Your task to perform on an android device: Go to Amazon Image 0: 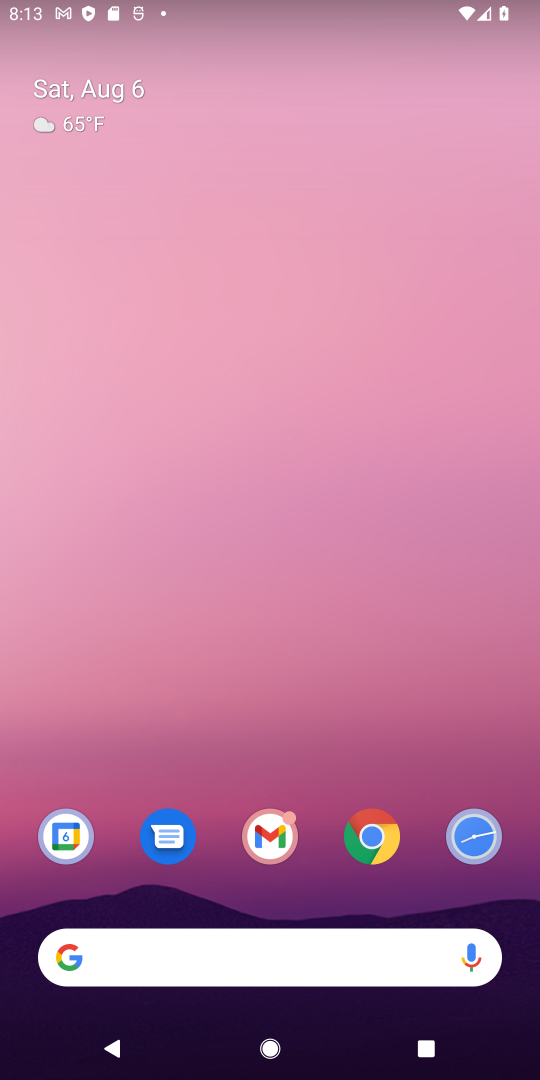
Step 0: drag from (441, 886) to (304, 58)
Your task to perform on an android device: Go to Amazon Image 1: 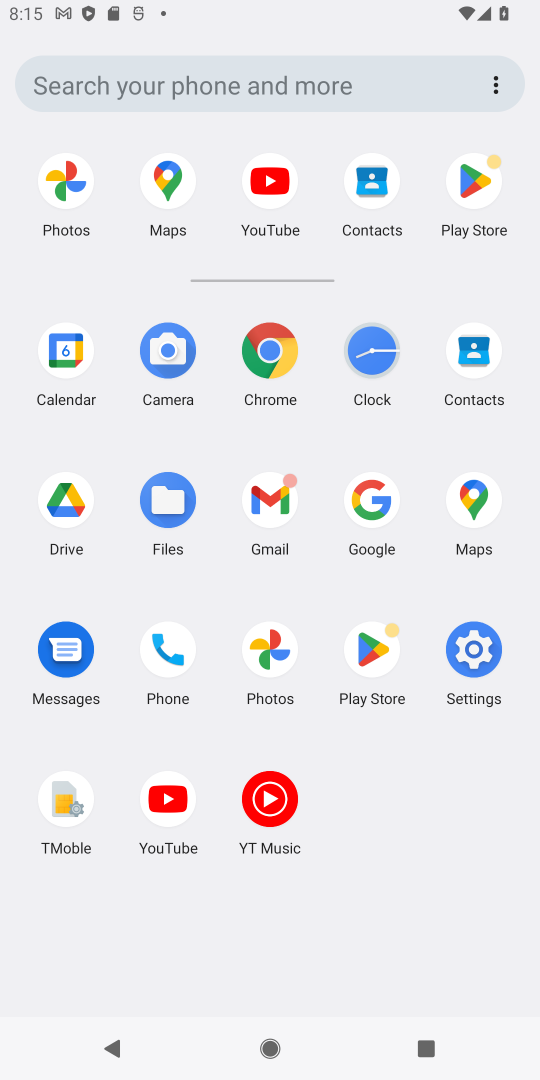
Step 1: click (372, 519)
Your task to perform on an android device: Go to Amazon Image 2: 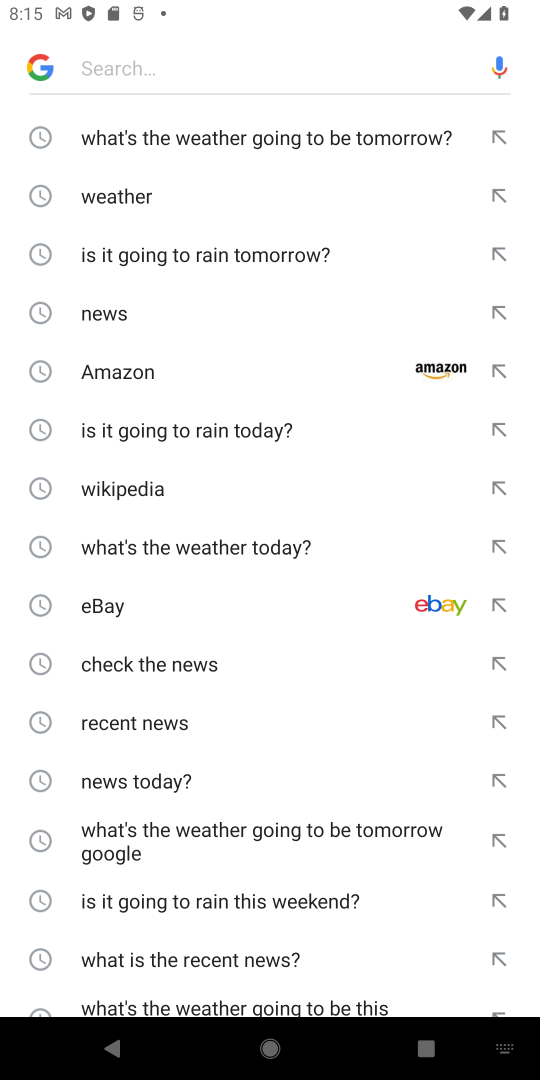
Step 2: click (177, 386)
Your task to perform on an android device: Go to Amazon Image 3: 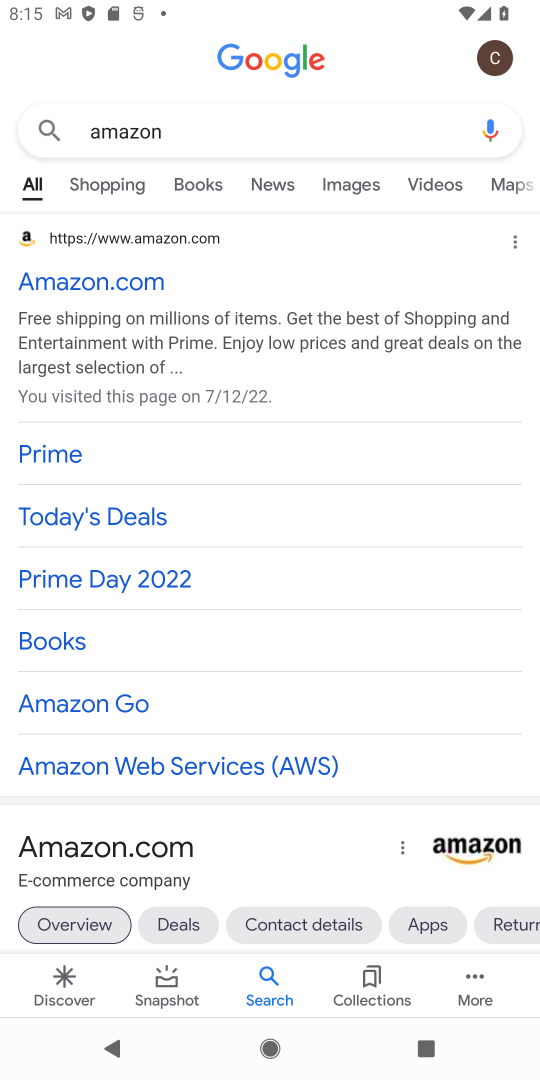
Step 3: task complete